Your task to perform on an android device: Open display settings Image 0: 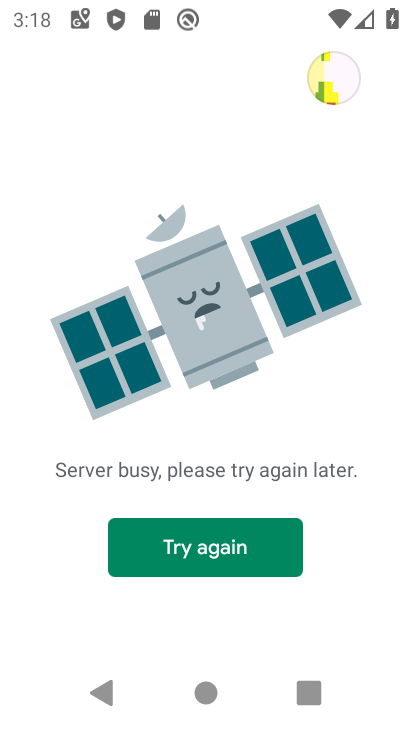
Step 0: press home button
Your task to perform on an android device: Open display settings Image 1: 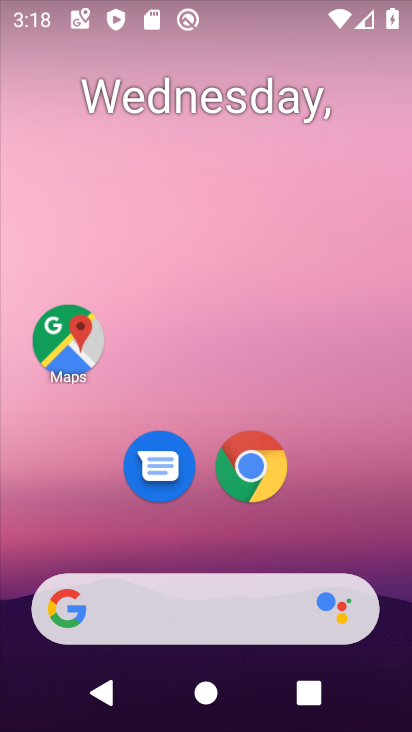
Step 1: drag from (218, 568) to (93, 0)
Your task to perform on an android device: Open display settings Image 2: 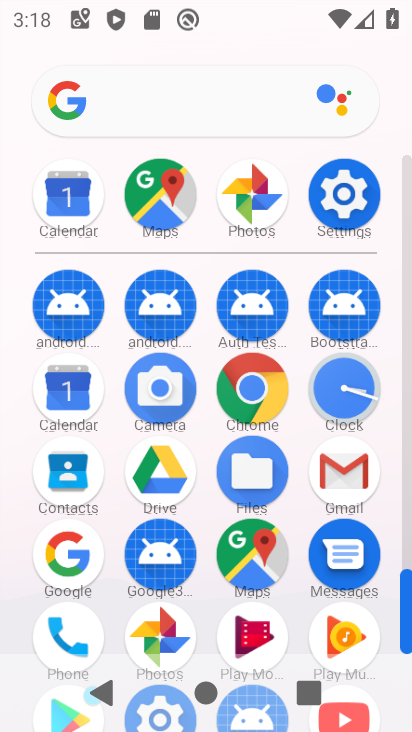
Step 2: click (354, 189)
Your task to perform on an android device: Open display settings Image 3: 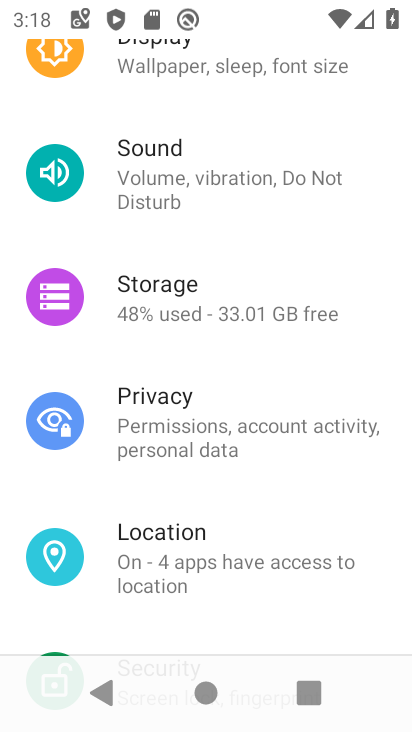
Step 3: drag from (171, 180) to (136, 429)
Your task to perform on an android device: Open display settings Image 4: 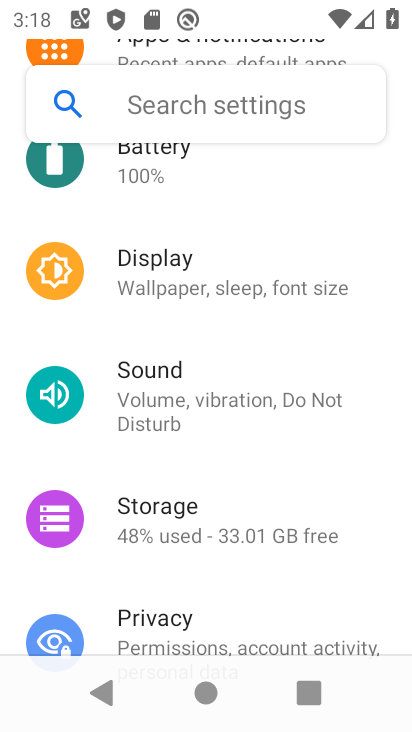
Step 4: click (157, 273)
Your task to perform on an android device: Open display settings Image 5: 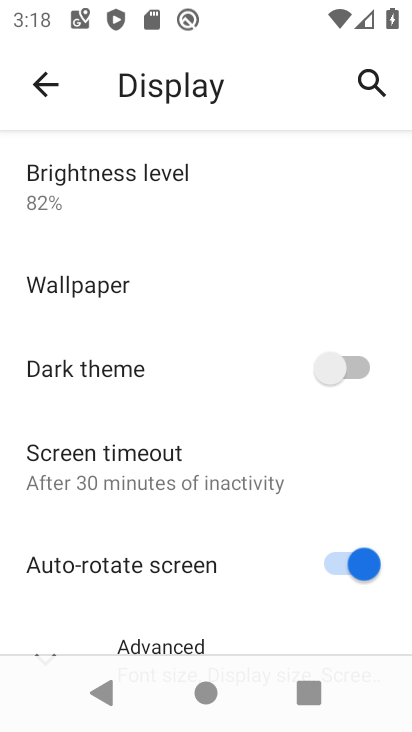
Step 5: task complete